Your task to perform on an android device: Open the calendar and show me this week's events? Image 0: 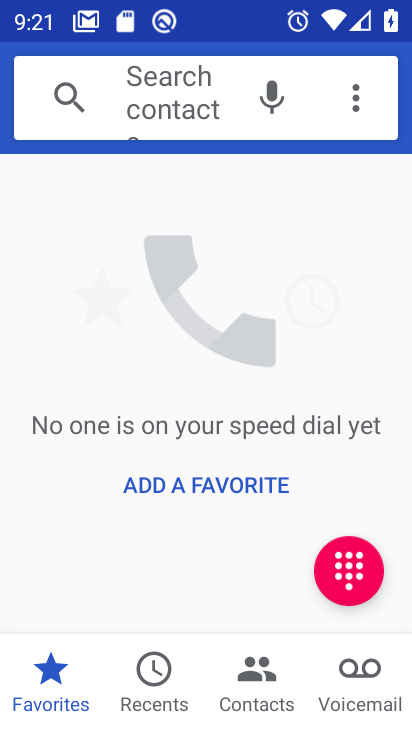
Step 0: press home button
Your task to perform on an android device: Open the calendar and show me this week's events? Image 1: 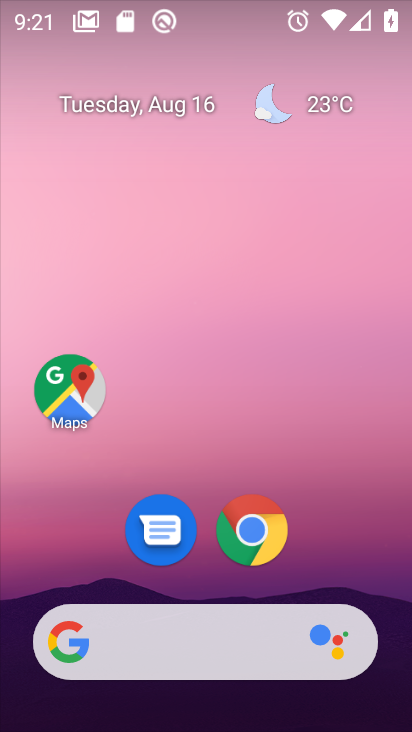
Step 1: click (175, 103)
Your task to perform on an android device: Open the calendar and show me this week's events? Image 2: 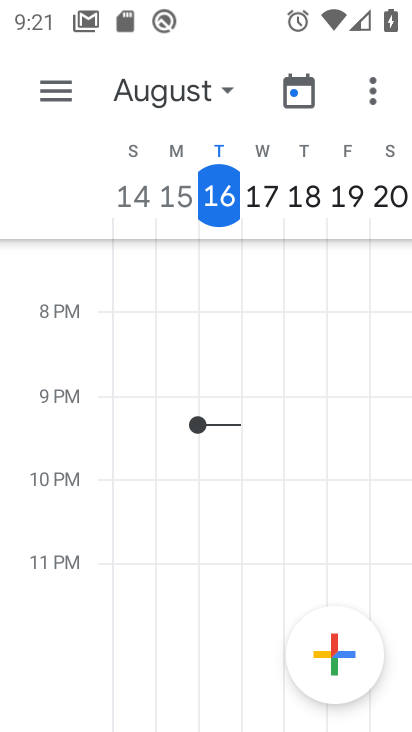
Step 2: task complete